Your task to perform on an android device: see sites visited before in the chrome app Image 0: 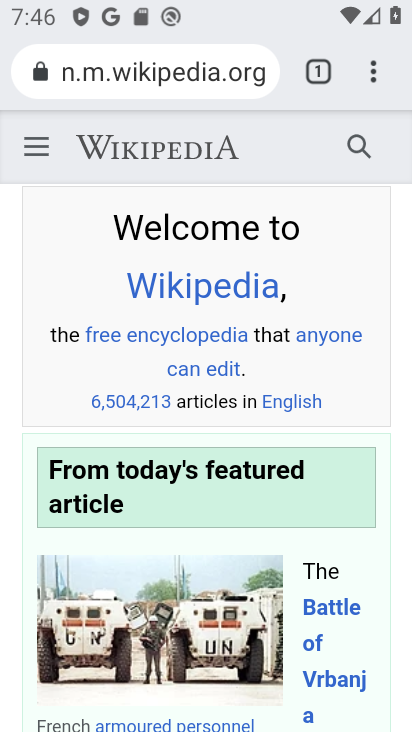
Step 0: press home button
Your task to perform on an android device: see sites visited before in the chrome app Image 1: 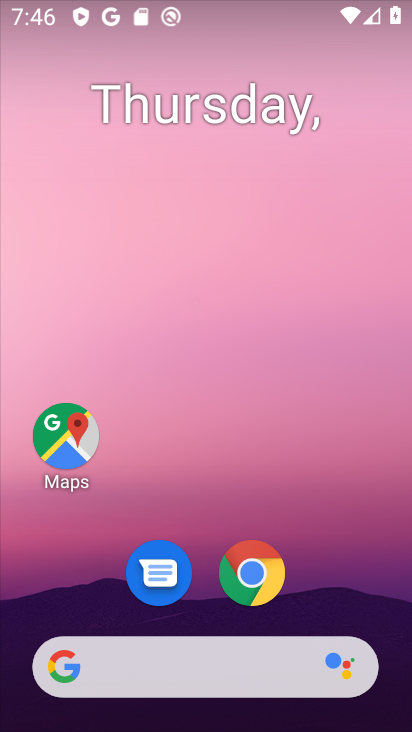
Step 1: drag from (338, 598) to (332, 221)
Your task to perform on an android device: see sites visited before in the chrome app Image 2: 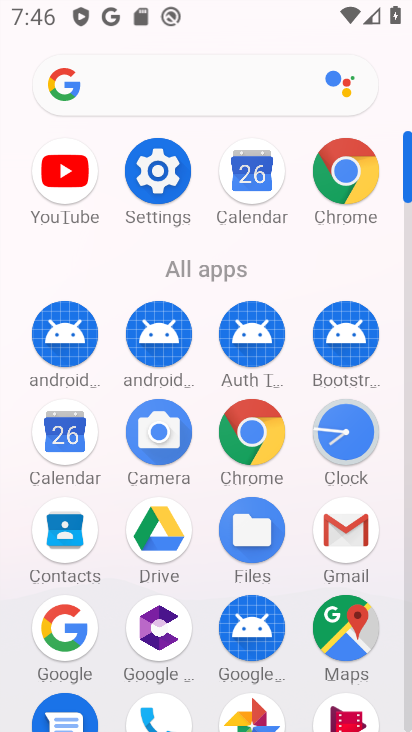
Step 2: click (236, 446)
Your task to perform on an android device: see sites visited before in the chrome app Image 3: 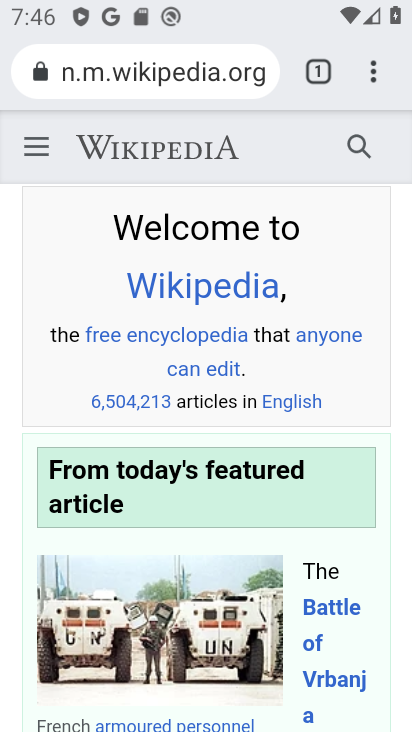
Step 3: task complete